Your task to perform on an android device: Open Youtube and go to "Your channel" Image 0: 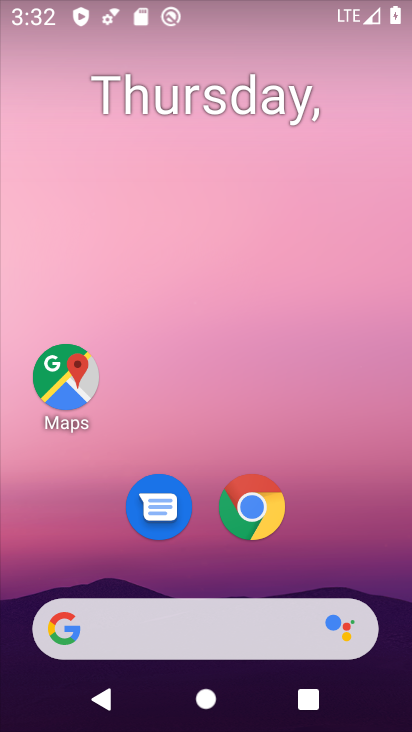
Step 0: press home button
Your task to perform on an android device: Open Youtube and go to "Your channel" Image 1: 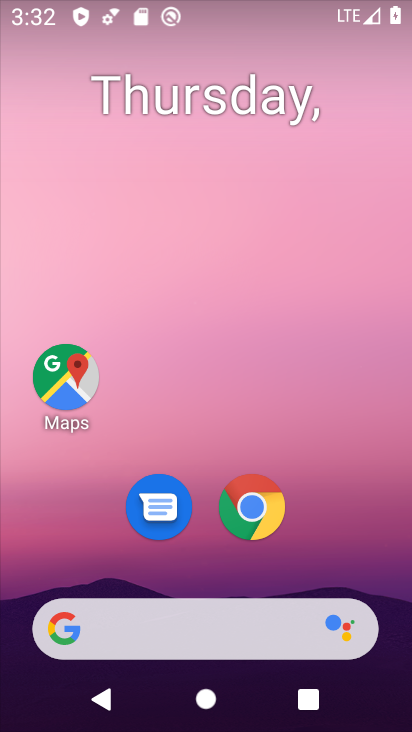
Step 1: drag from (354, 548) to (339, 117)
Your task to perform on an android device: Open Youtube and go to "Your channel" Image 2: 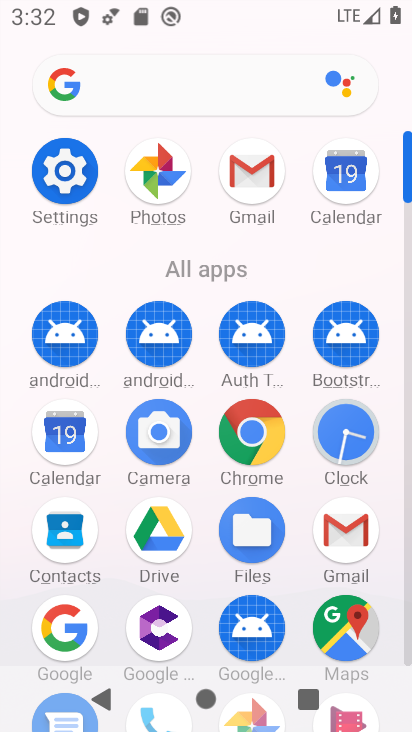
Step 2: click (406, 635)
Your task to perform on an android device: Open Youtube and go to "Your channel" Image 3: 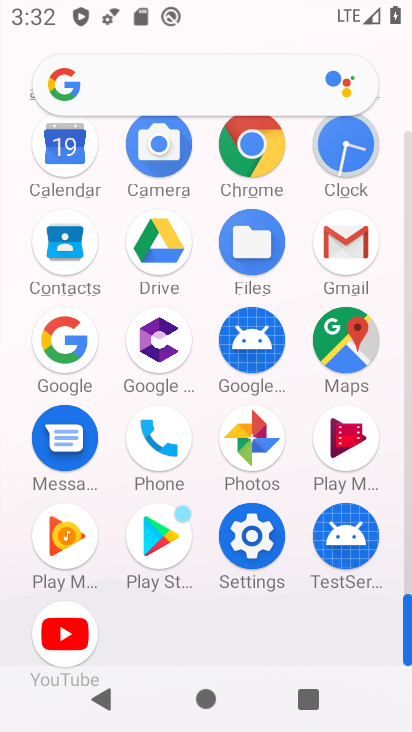
Step 3: click (84, 630)
Your task to perform on an android device: Open Youtube and go to "Your channel" Image 4: 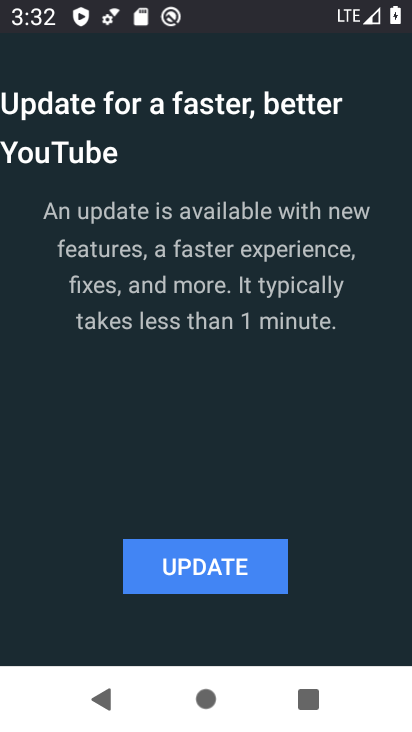
Step 4: click (221, 583)
Your task to perform on an android device: Open Youtube and go to "Your channel" Image 5: 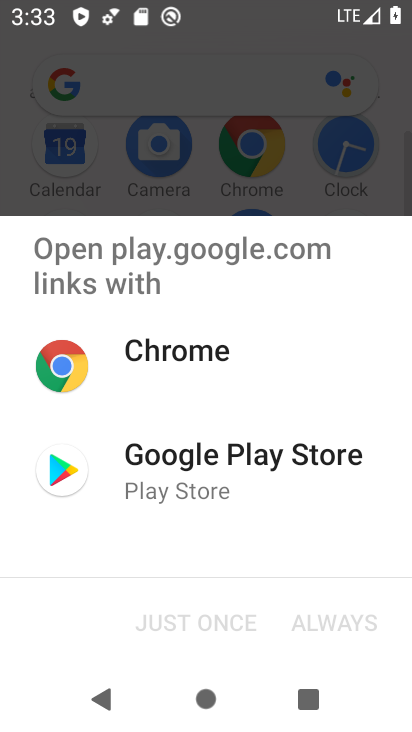
Step 5: click (178, 492)
Your task to perform on an android device: Open Youtube and go to "Your channel" Image 6: 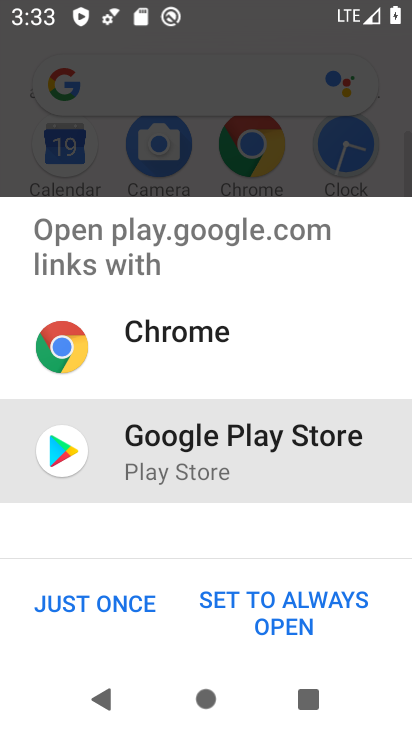
Step 6: click (95, 605)
Your task to perform on an android device: Open Youtube and go to "Your channel" Image 7: 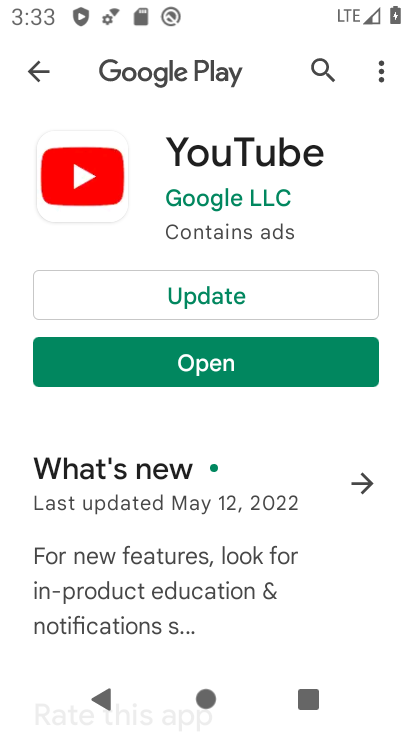
Step 7: click (144, 300)
Your task to perform on an android device: Open Youtube and go to "Your channel" Image 8: 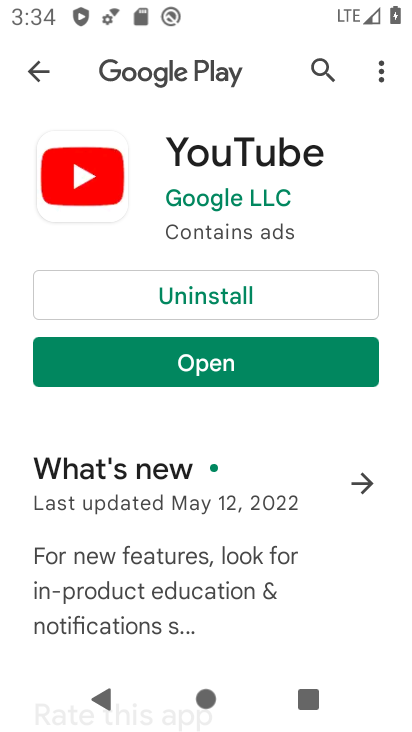
Step 8: click (205, 361)
Your task to perform on an android device: Open Youtube and go to "Your channel" Image 9: 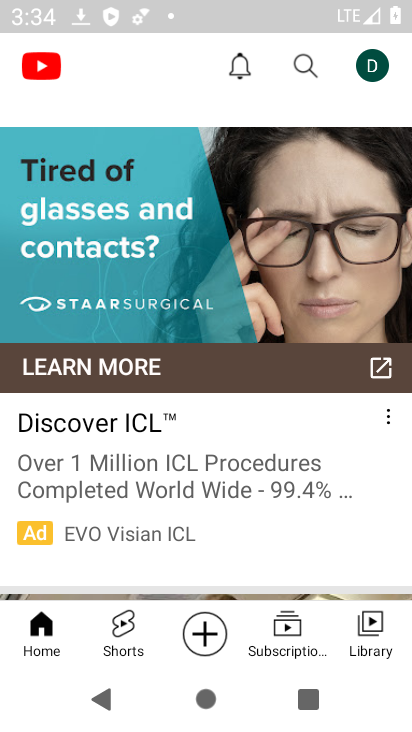
Step 9: click (378, 61)
Your task to perform on an android device: Open Youtube and go to "Your channel" Image 10: 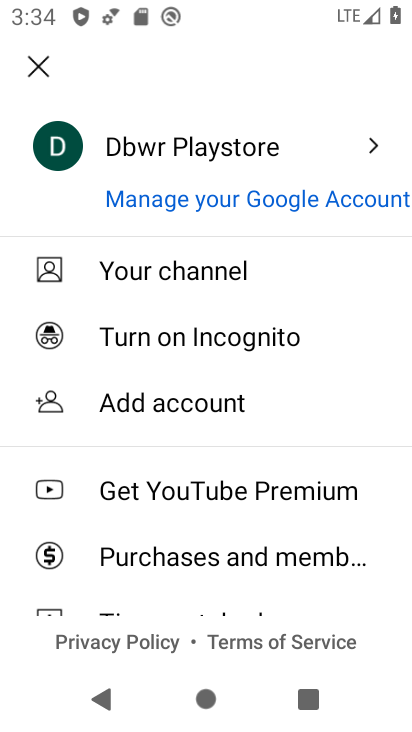
Step 10: click (146, 262)
Your task to perform on an android device: Open Youtube and go to "Your channel" Image 11: 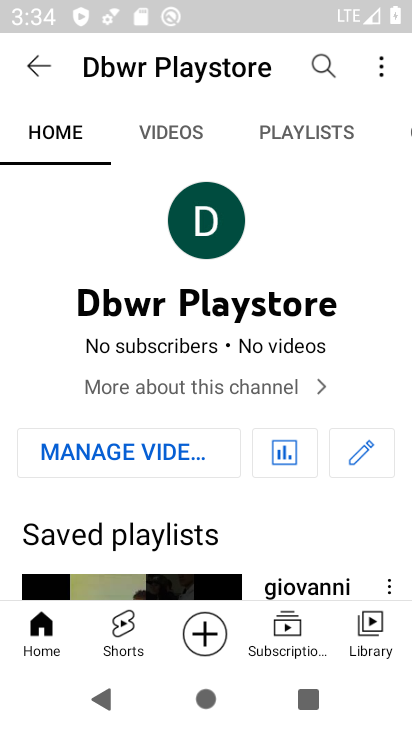
Step 11: task complete